Your task to perform on an android device: Open network settings Image 0: 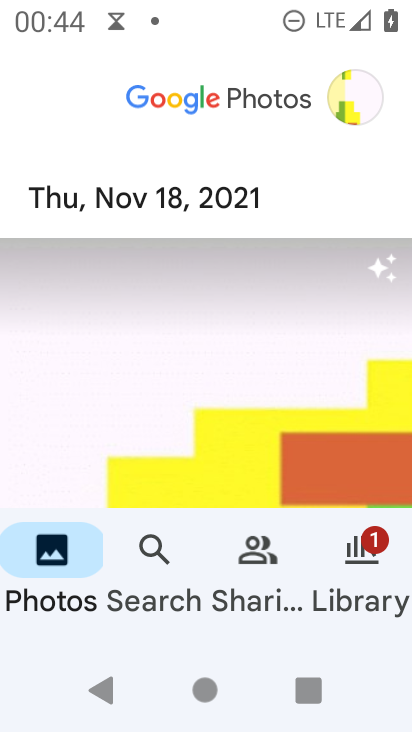
Step 0: press home button
Your task to perform on an android device: Open network settings Image 1: 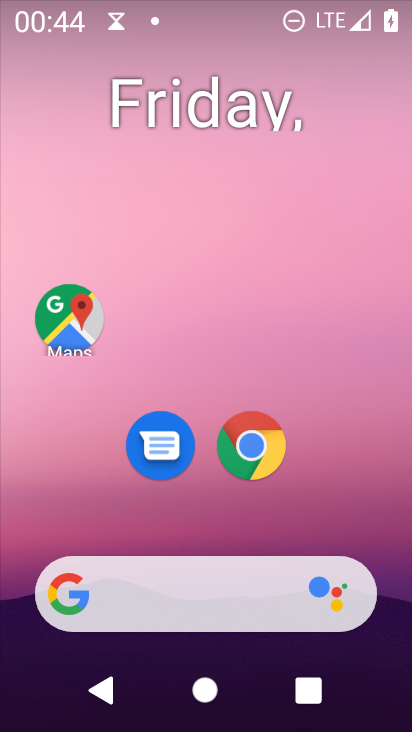
Step 1: drag from (239, 729) to (212, 15)
Your task to perform on an android device: Open network settings Image 2: 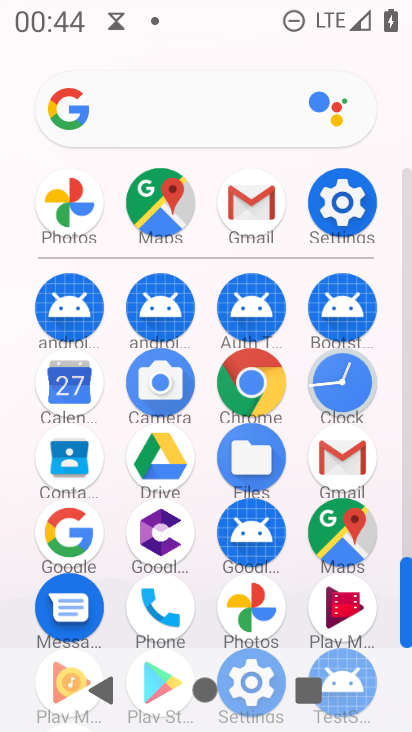
Step 2: click (342, 202)
Your task to perform on an android device: Open network settings Image 3: 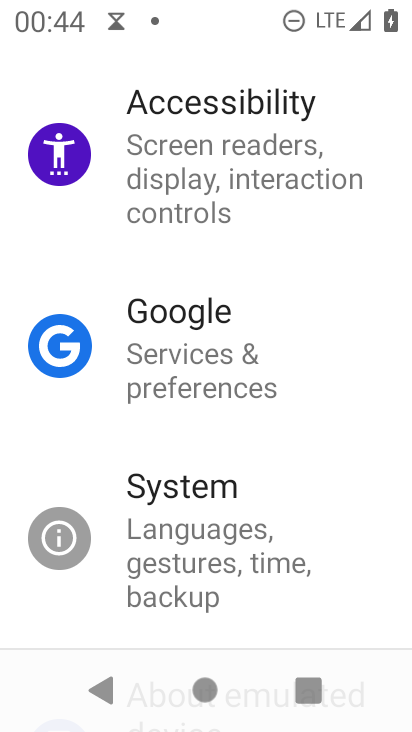
Step 3: drag from (335, 123) to (346, 546)
Your task to perform on an android device: Open network settings Image 4: 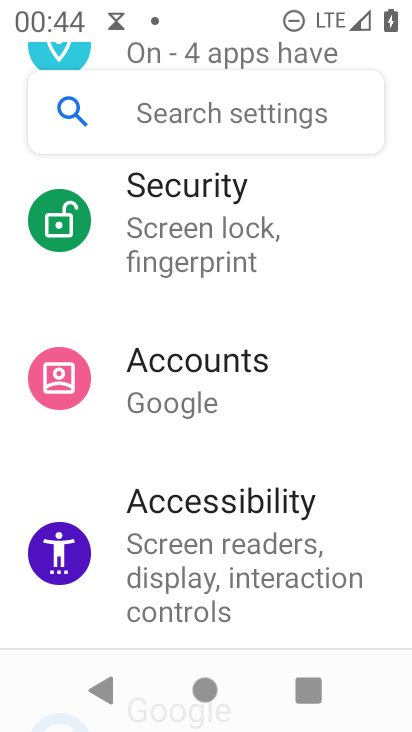
Step 4: drag from (267, 184) to (279, 526)
Your task to perform on an android device: Open network settings Image 5: 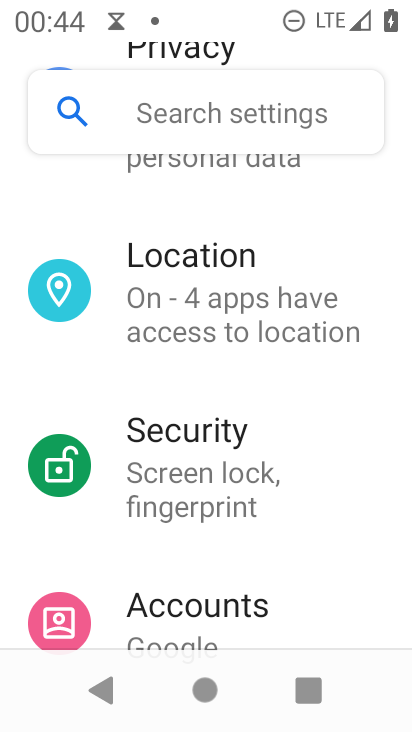
Step 5: drag from (269, 173) to (278, 638)
Your task to perform on an android device: Open network settings Image 6: 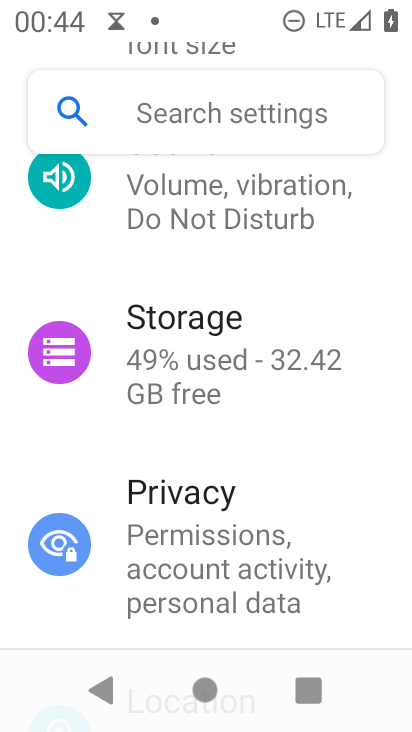
Step 6: drag from (242, 180) to (266, 651)
Your task to perform on an android device: Open network settings Image 7: 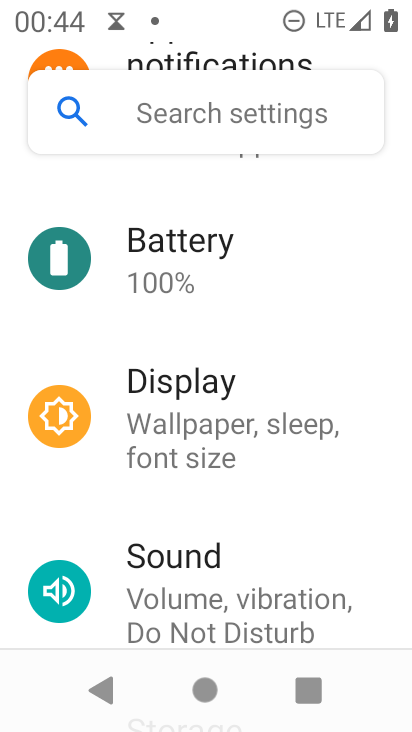
Step 7: drag from (216, 173) to (224, 564)
Your task to perform on an android device: Open network settings Image 8: 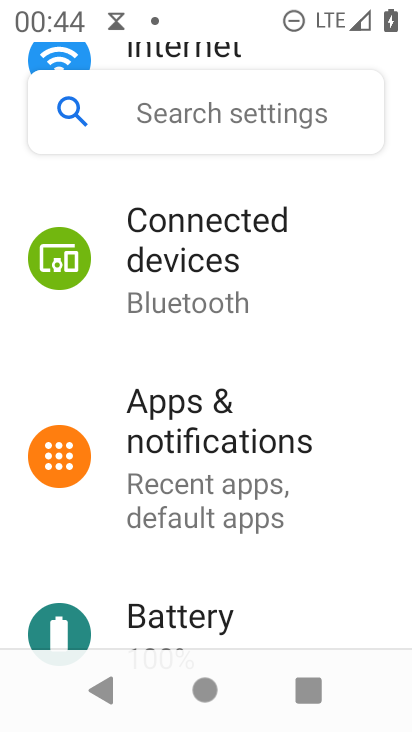
Step 8: drag from (221, 182) to (250, 591)
Your task to perform on an android device: Open network settings Image 9: 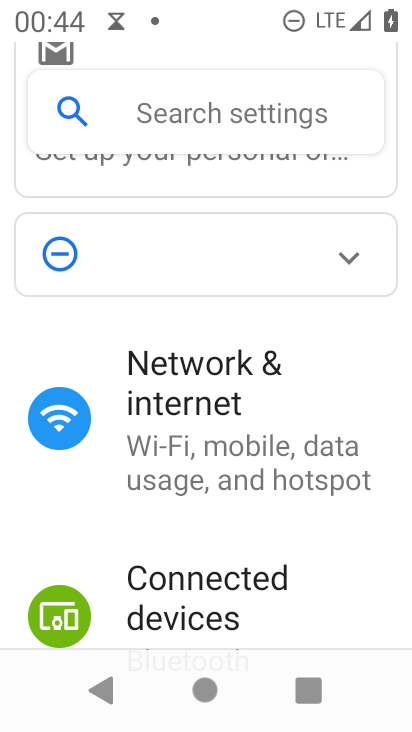
Step 9: click (202, 396)
Your task to perform on an android device: Open network settings Image 10: 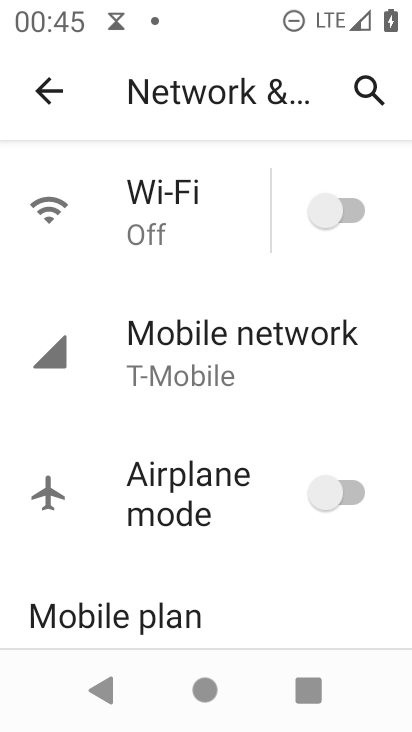
Step 10: click (186, 358)
Your task to perform on an android device: Open network settings Image 11: 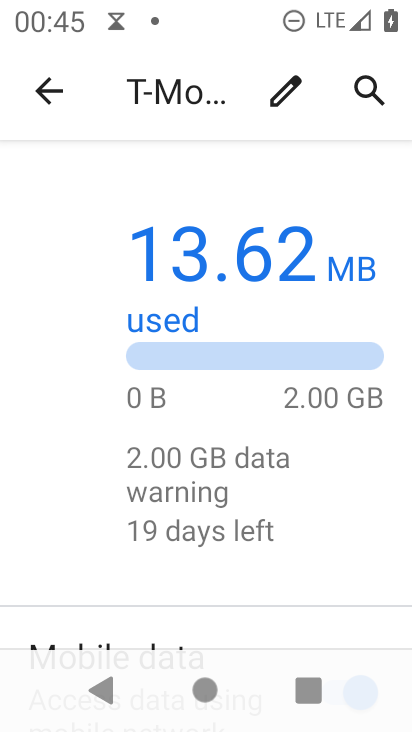
Step 11: task complete